Your task to perform on an android device: choose inbox layout in the gmail app Image 0: 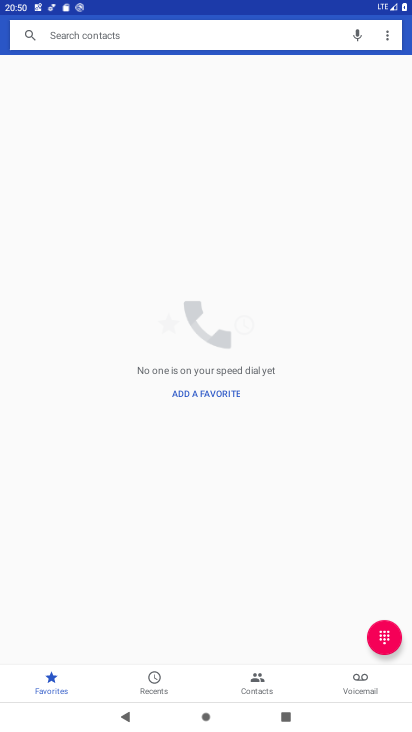
Step 0: press home button
Your task to perform on an android device: choose inbox layout in the gmail app Image 1: 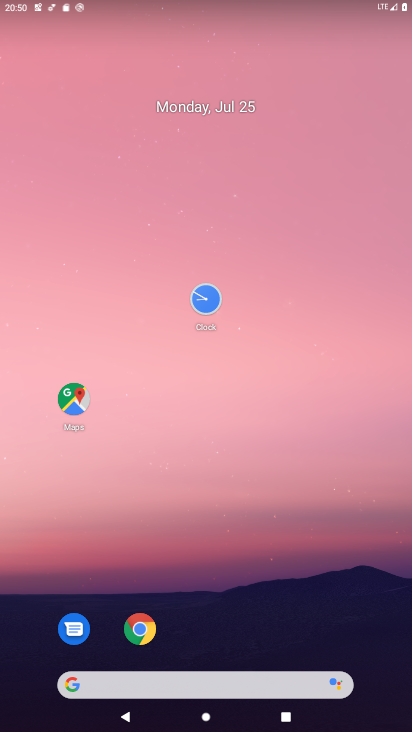
Step 1: drag from (191, 652) to (179, 14)
Your task to perform on an android device: choose inbox layout in the gmail app Image 2: 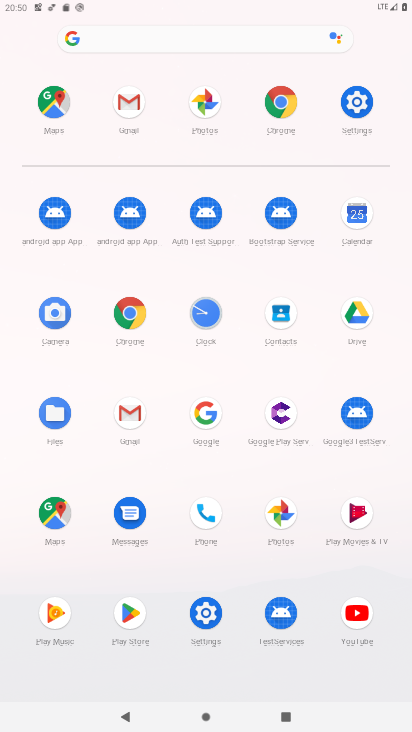
Step 2: click (145, 426)
Your task to perform on an android device: choose inbox layout in the gmail app Image 3: 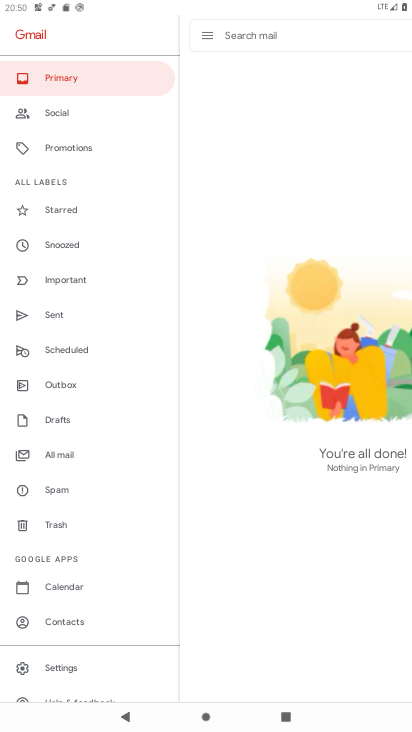
Step 3: drag from (80, 614) to (107, 62)
Your task to perform on an android device: choose inbox layout in the gmail app Image 4: 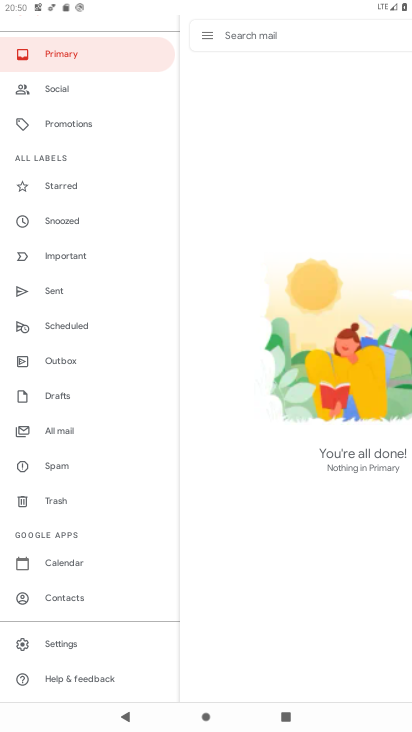
Step 4: click (72, 651)
Your task to perform on an android device: choose inbox layout in the gmail app Image 5: 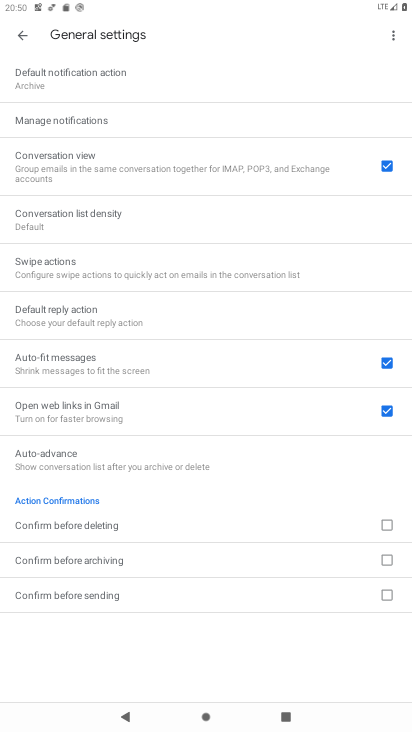
Step 5: click (19, 38)
Your task to perform on an android device: choose inbox layout in the gmail app Image 6: 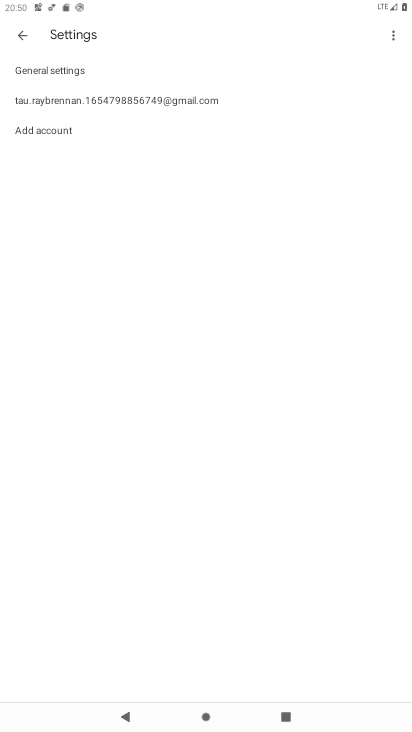
Step 6: click (116, 94)
Your task to perform on an android device: choose inbox layout in the gmail app Image 7: 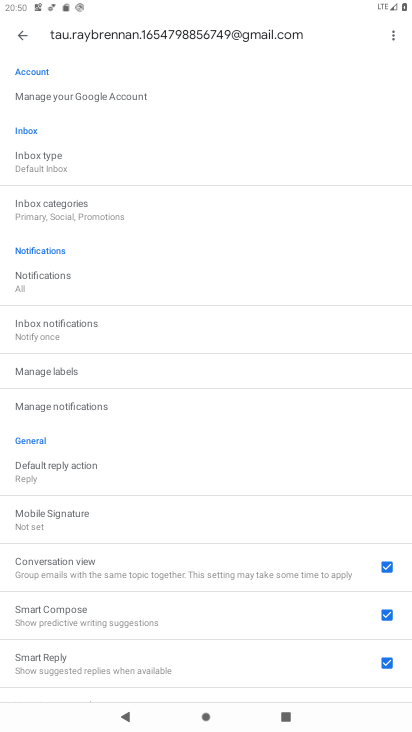
Step 7: click (64, 168)
Your task to perform on an android device: choose inbox layout in the gmail app Image 8: 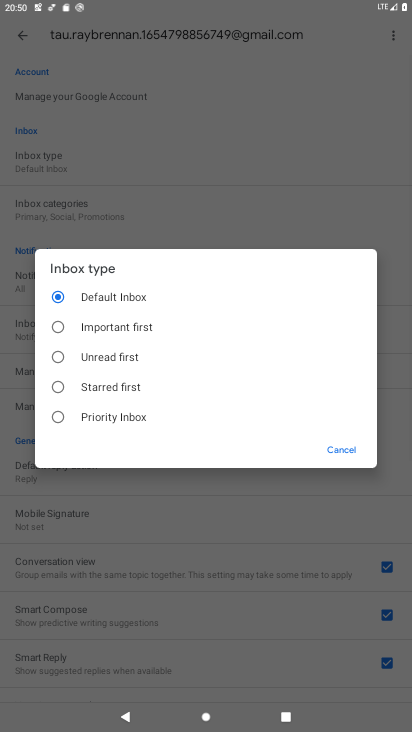
Step 8: click (73, 422)
Your task to perform on an android device: choose inbox layout in the gmail app Image 9: 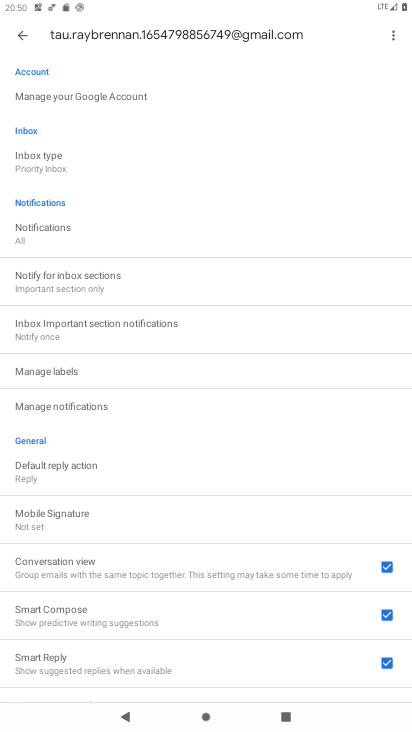
Step 9: task complete